Your task to perform on an android device: turn smart compose on in the gmail app Image 0: 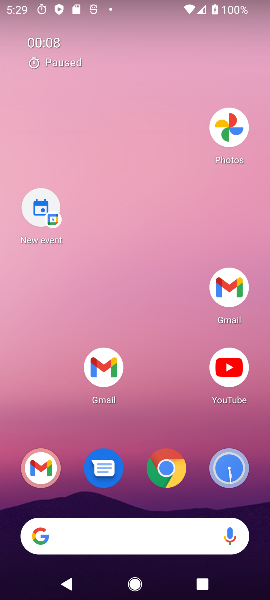
Step 0: drag from (150, 443) to (110, 154)
Your task to perform on an android device: turn smart compose on in the gmail app Image 1: 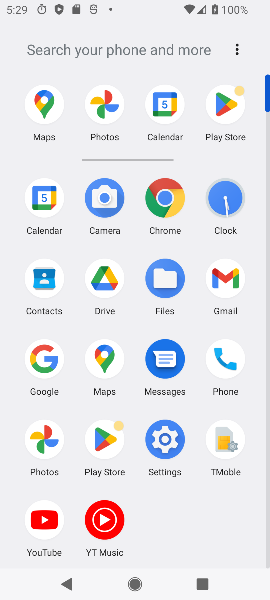
Step 1: click (213, 278)
Your task to perform on an android device: turn smart compose on in the gmail app Image 2: 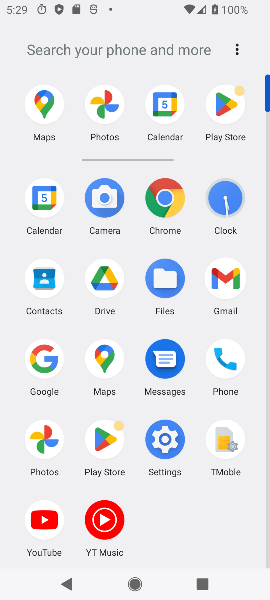
Step 2: click (213, 278)
Your task to perform on an android device: turn smart compose on in the gmail app Image 3: 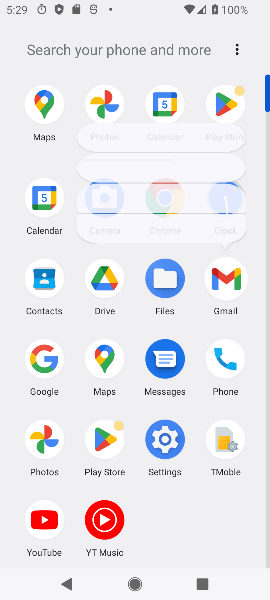
Step 3: click (213, 278)
Your task to perform on an android device: turn smart compose on in the gmail app Image 4: 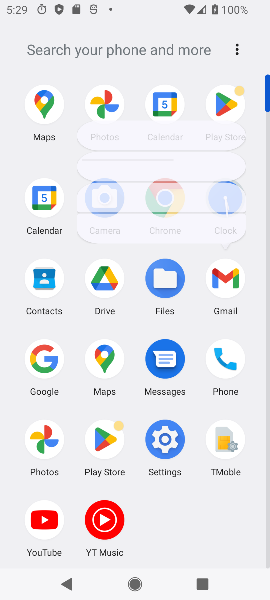
Step 4: click (212, 277)
Your task to perform on an android device: turn smart compose on in the gmail app Image 5: 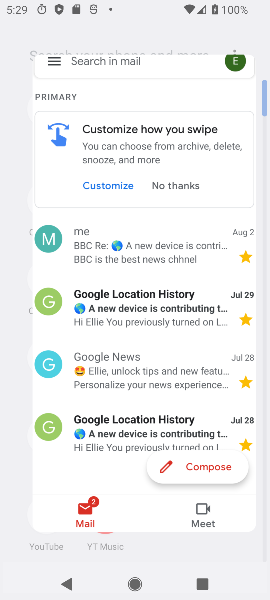
Step 5: click (212, 277)
Your task to perform on an android device: turn smart compose on in the gmail app Image 6: 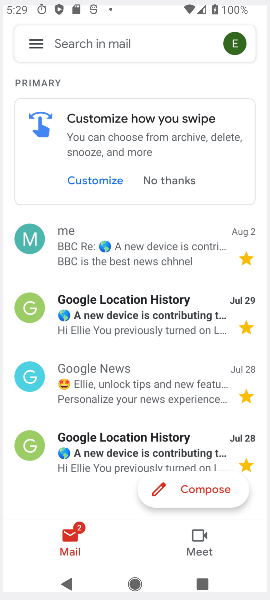
Step 6: click (212, 277)
Your task to perform on an android device: turn smart compose on in the gmail app Image 7: 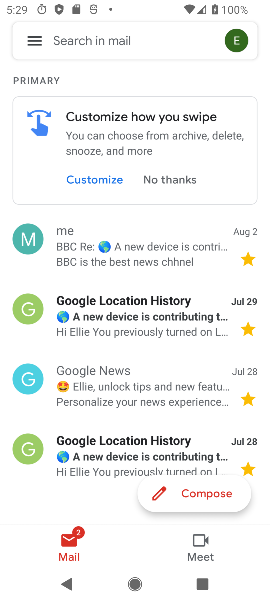
Step 7: click (211, 277)
Your task to perform on an android device: turn smart compose on in the gmail app Image 8: 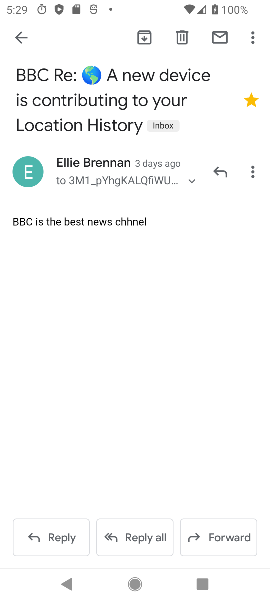
Step 8: click (8, 32)
Your task to perform on an android device: turn smart compose on in the gmail app Image 9: 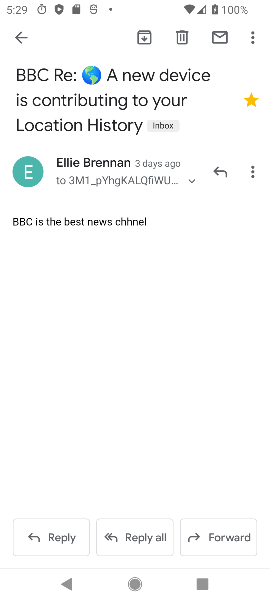
Step 9: click (21, 35)
Your task to perform on an android device: turn smart compose on in the gmail app Image 10: 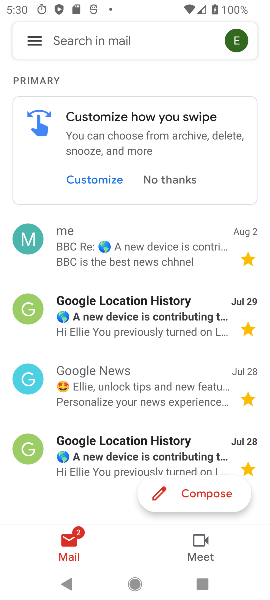
Step 10: click (35, 41)
Your task to perform on an android device: turn smart compose on in the gmail app Image 11: 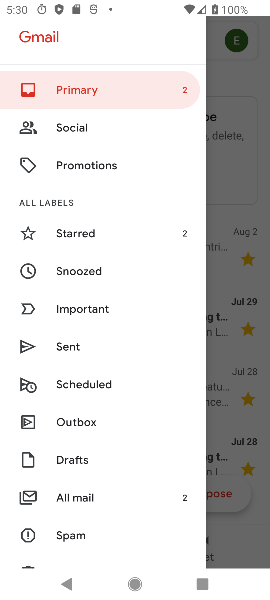
Step 11: drag from (80, 466) to (90, 138)
Your task to perform on an android device: turn smart compose on in the gmail app Image 12: 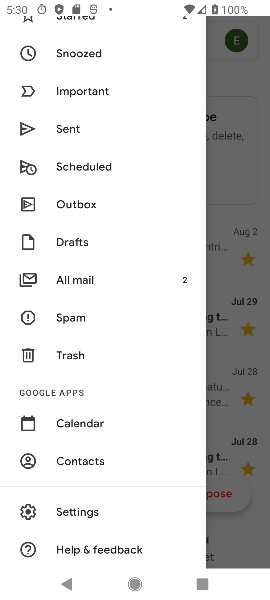
Step 12: click (66, 507)
Your task to perform on an android device: turn smart compose on in the gmail app Image 13: 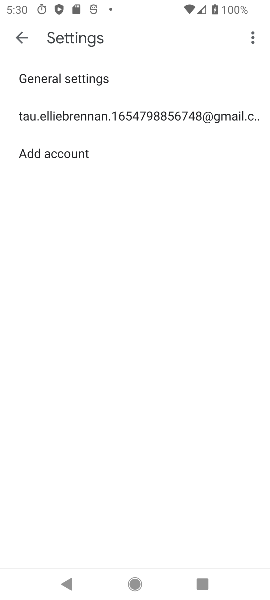
Step 13: click (89, 108)
Your task to perform on an android device: turn smart compose on in the gmail app Image 14: 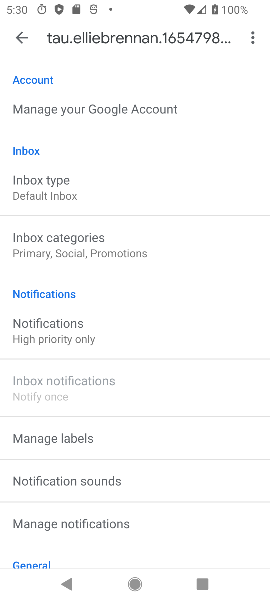
Step 14: drag from (46, 459) to (52, 123)
Your task to perform on an android device: turn smart compose on in the gmail app Image 15: 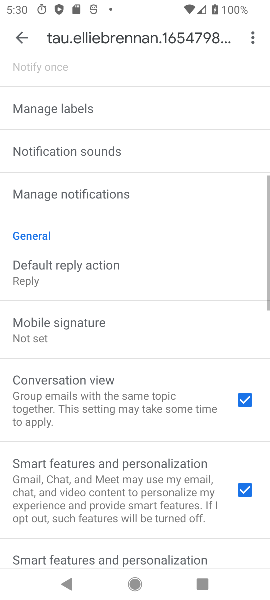
Step 15: drag from (64, 383) to (42, 235)
Your task to perform on an android device: turn smart compose on in the gmail app Image 16: 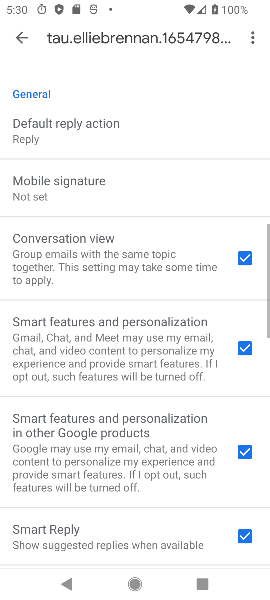
Step 16: drag from (60, 382) to (49, 146)
Your task to perform on an android device: turn smart compose on in the gmail app Image 17: 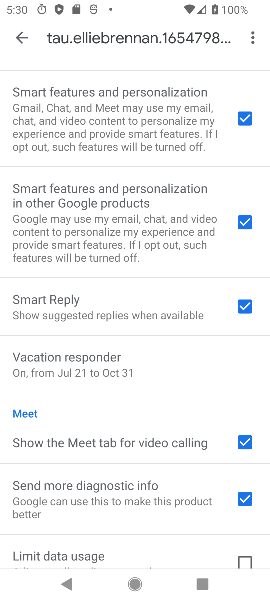
Step 17: click (248, 538)
Your task to perform on an android device: turn smart compose on in the gmail app Image 18: 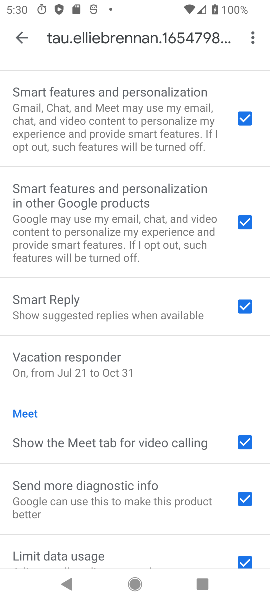
Step 18: click (247, 501)
Your task to perform on an android device: turn smart compose on in the gmail app Image 19: 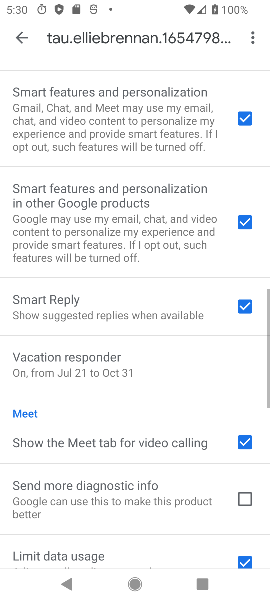
Step 19: click (247, 501)
Your task to perform on an android device: turn smart compose on in the gmail app Image 20: 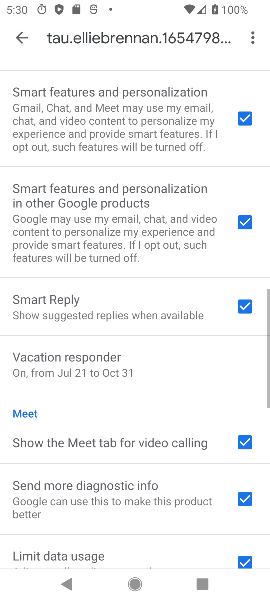
Step 20: click (240, 307)
Your task to perform on an android device: turn smart compose on in the gmail app Image 21: 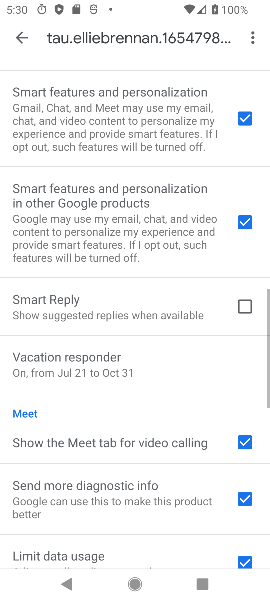
Step 21: task complete